Your task to perform on an android device: When is my next appointment? Image 0: 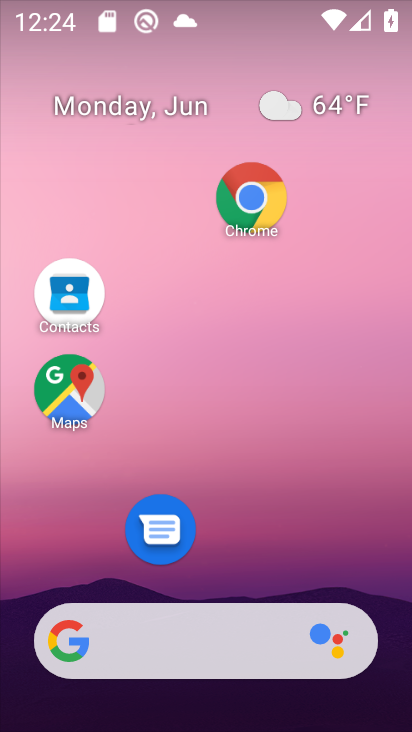
Step 0: drag from (276, 560) to (334, 5)
Your task to perform on an android device: When is my next appointment? Image 1: 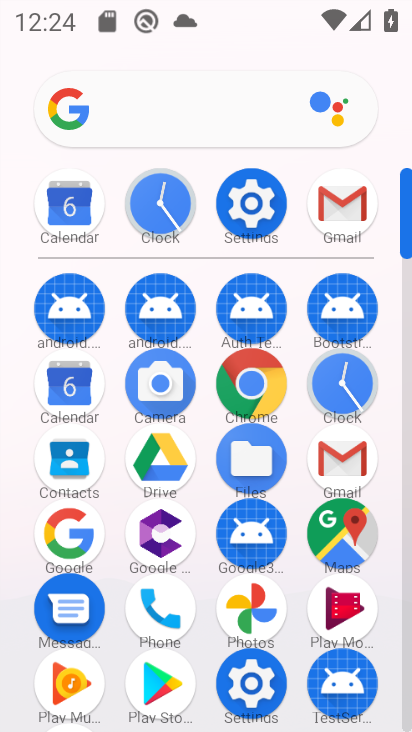
Step 1: click (59, 384)
Your task to perform on an android device: When is my next appointment? Image 2: 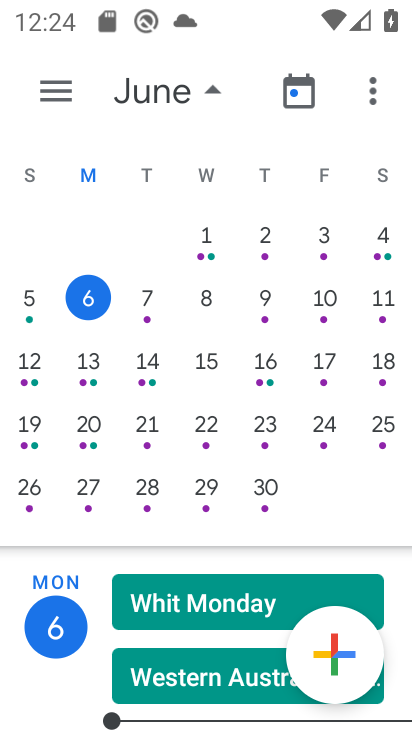
Step 2: click (92, 305)
Your task to perform on an android device: When is my next appointment? Image 3: 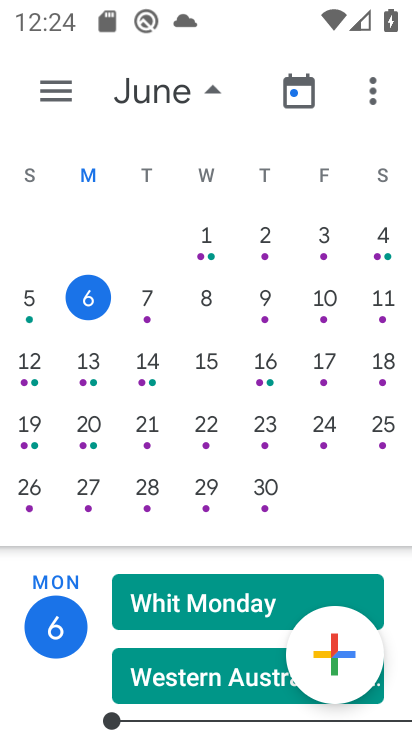
Step 3: task complete